Your task to perform on an android device: move an email to a new category in the gmail app Image 0: 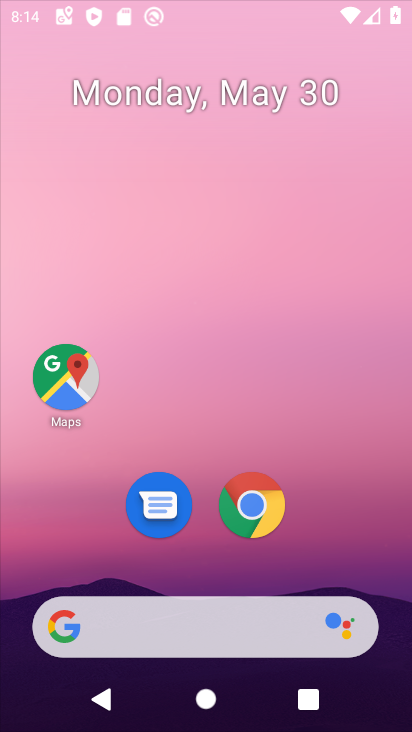
Step 0: drag from (251, 218) to (307, 6)
Your task to perform on an android device: move an email to a new category in the gmail app Image 1: 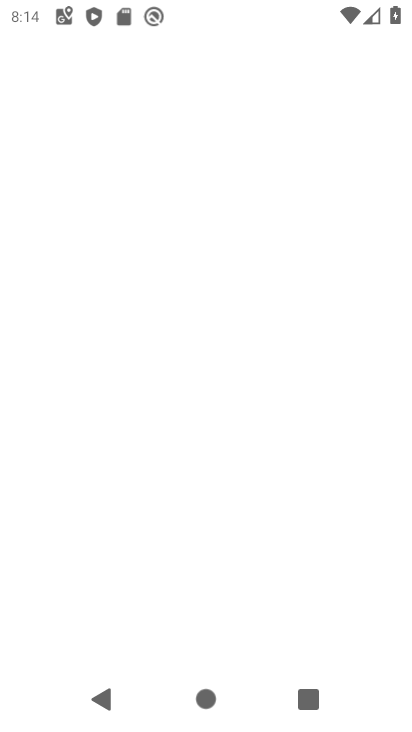
Step 1: press home button
Your task to perform on an android device: move an email to a new category in the gmail app Image 2: 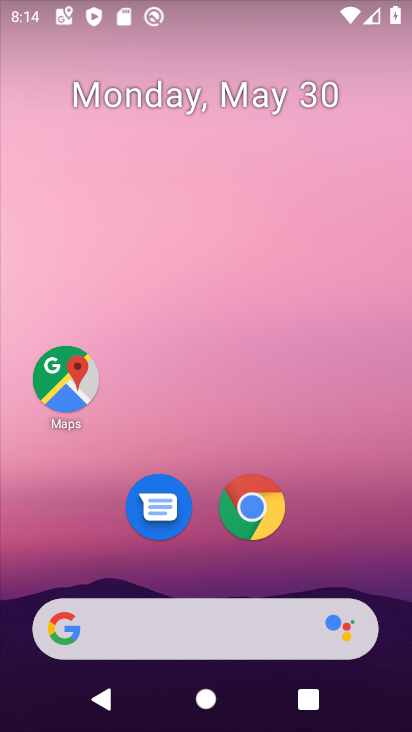
Step 2: drag from (220, 576) to (248, 7)
Your task to perform on an android device: move an email to a new category in the gmail app Image 3: 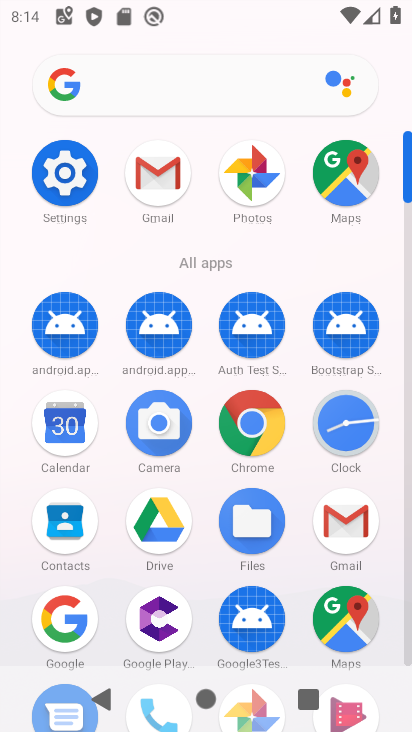
Step 3: click (348, 519)
Your task to perform on an android device: move an email to a new category in the gmail app Image 4: 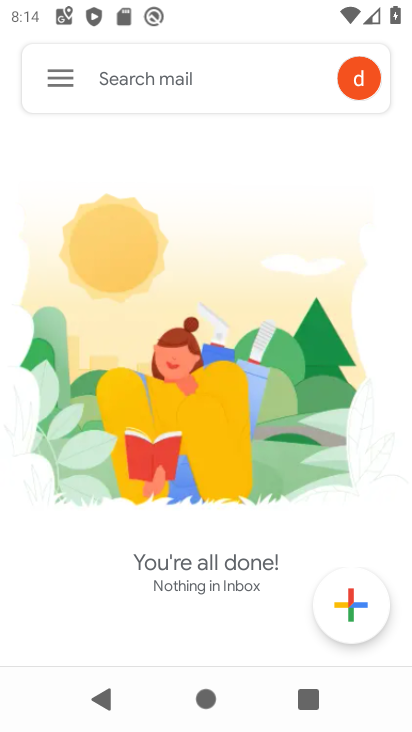
Step 4: click (64, 68)
Your task to perform on an android device: move an email to a new category in the gmail app Image 5: 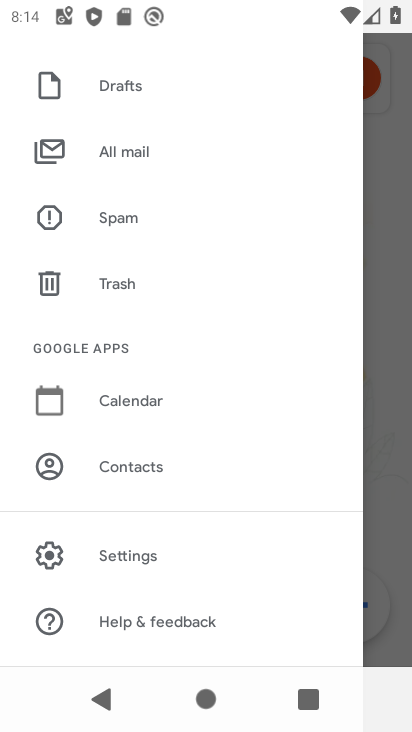
Step 5: click (134, 144)
Your task to perform on an android device: move an email to a new category in the gmail app Image 6: 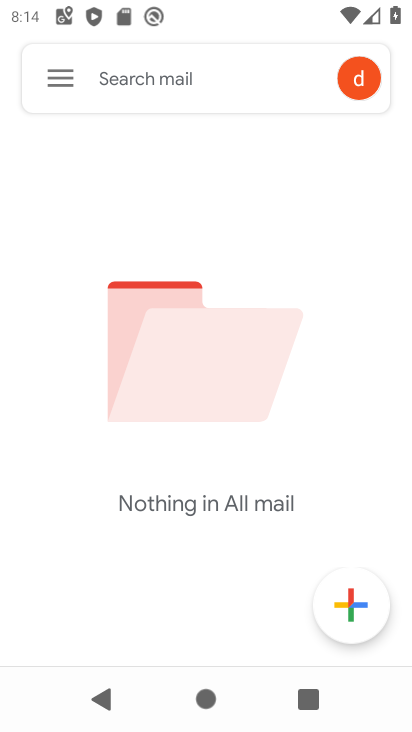
Step 6: task complete